Your task to perform on an android device: turn off sleep mode Image 0: 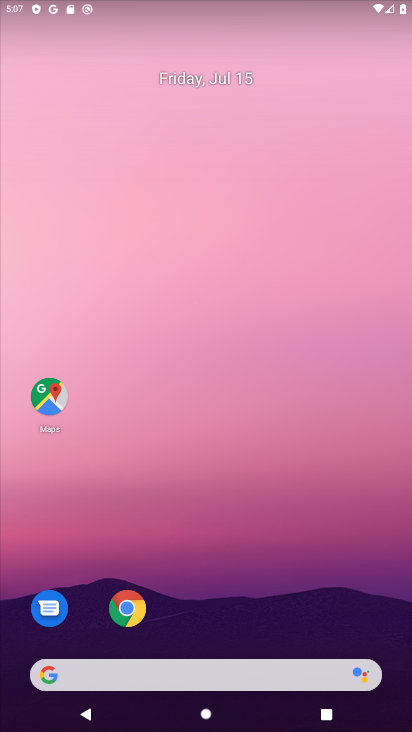
Step 0: press home button
Your task to perform on an android device: turn off sleep mode Image 1: 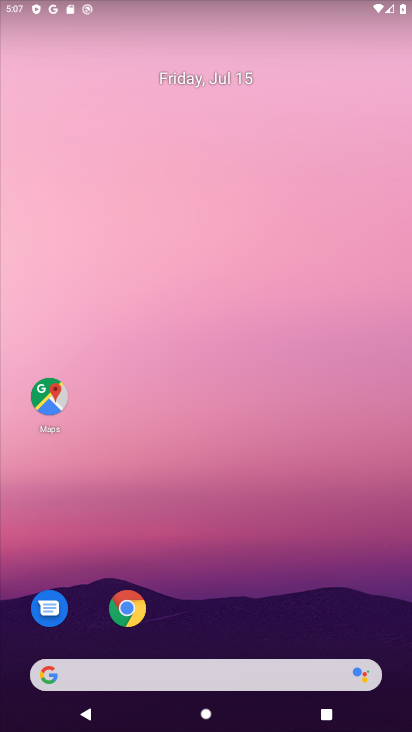
Step 1: drag from (190, 553) to (260, 8)
Your task to perform on an android device: turn off sleep mode Image 2: 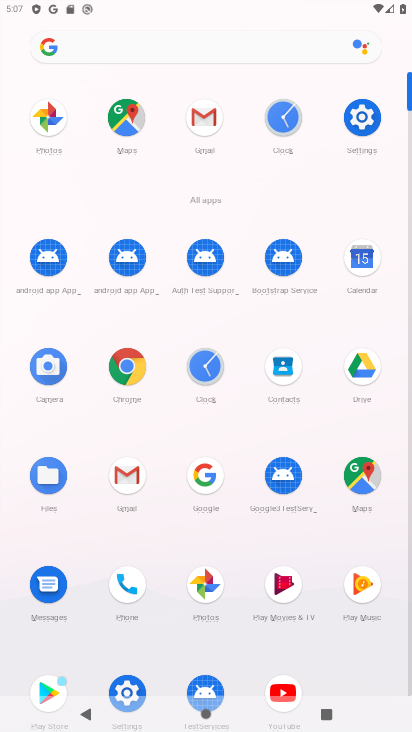
Step 2: click (361, 127)
Your task to perform on an android device: turn off sleep mode Image 3: 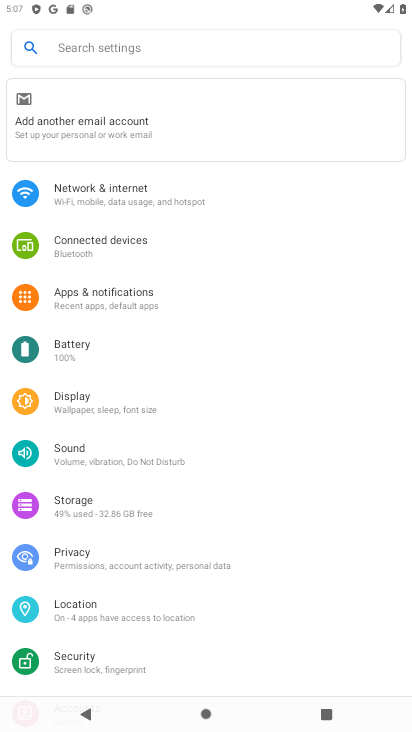
Step 3: click (83, 402)
Your task to perform on an android device: turn off sleep mode Image 4: 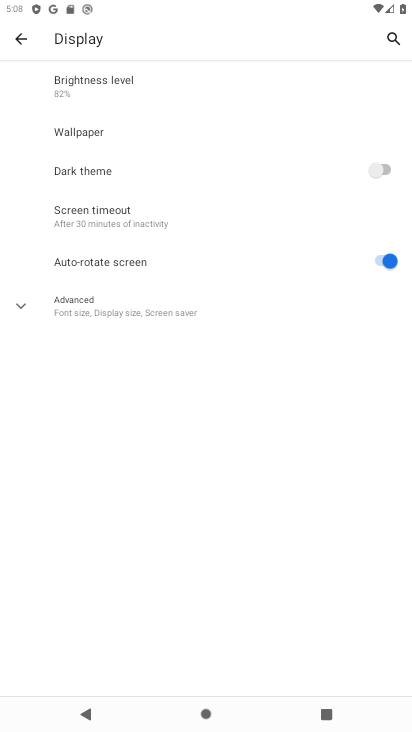
Step 4: click (125, 211)
Your task to perform on an android device: turn off sleep mode Image 5: 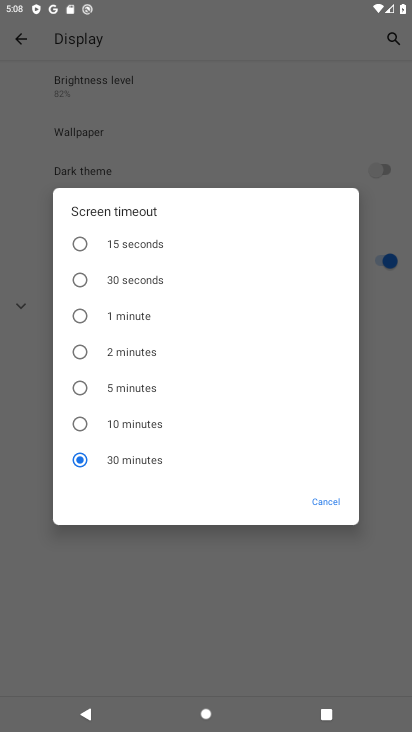
Step 5: task complete